Your task to perform on an android device: check out phone information Image 0: 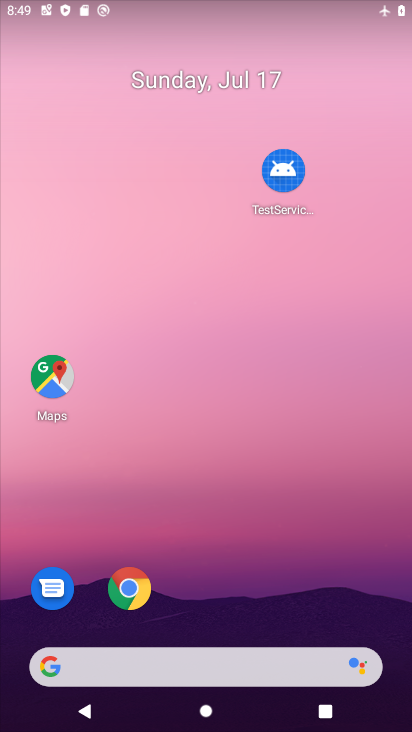
Step 0: drag from (191, 619) to (190, 235)
Your task to perform on an android device: check out phone information Image 1: 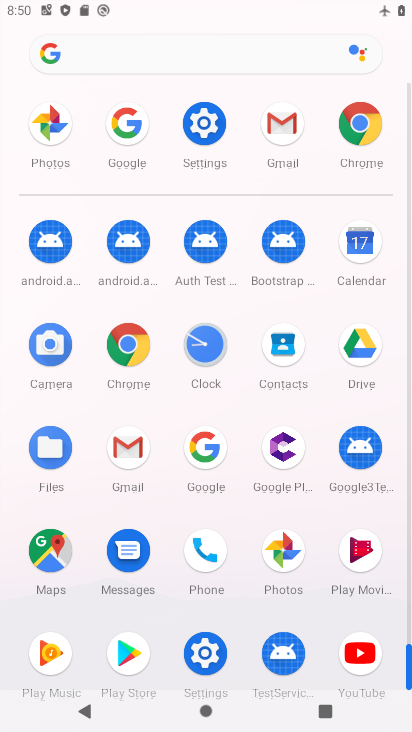
Step 1: click (205, 154)
Your task to perform on an android device: check out phone information Image 2: 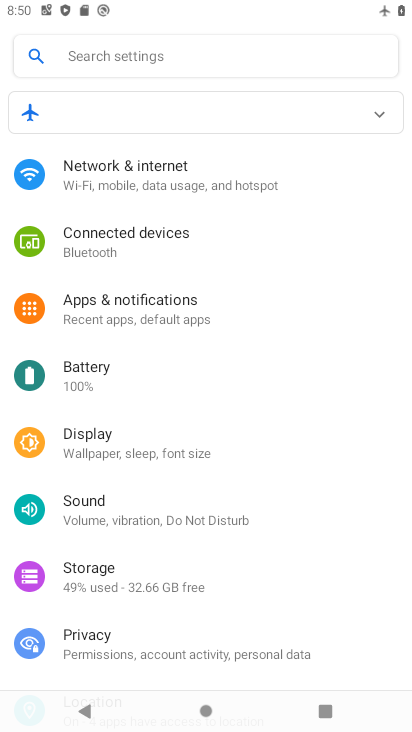
Step 2: drag from (214, 517) to (167, 161)
Your task to perform on an android device: check out phone information Image 3: 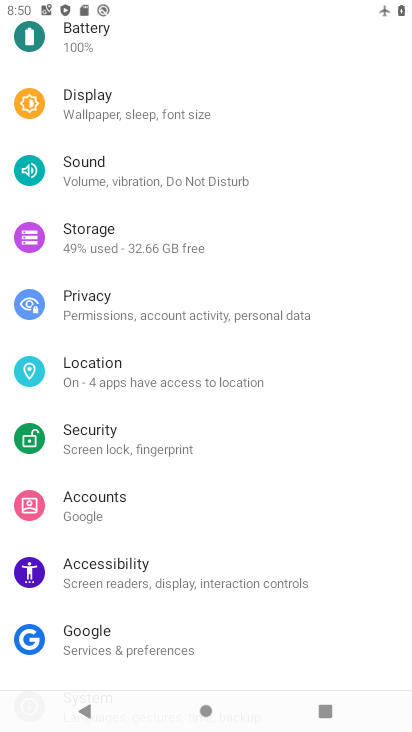
Step 3: drag from (227, 587) to (197, 273)
Your task to perform on an android device: check out phone information Image 4: 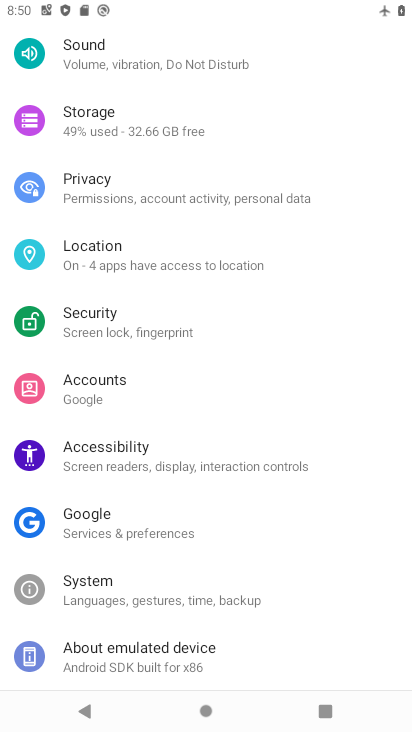
Step 4: click (157, 654)
Your task to perform on an android device: check out phone information Image 5: 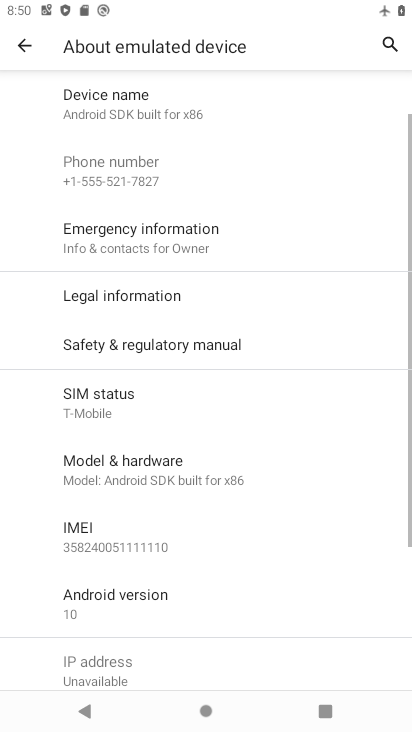
Step 5: task complete